Your task to perform on an android device: turn on bluetooth scan Image 0: 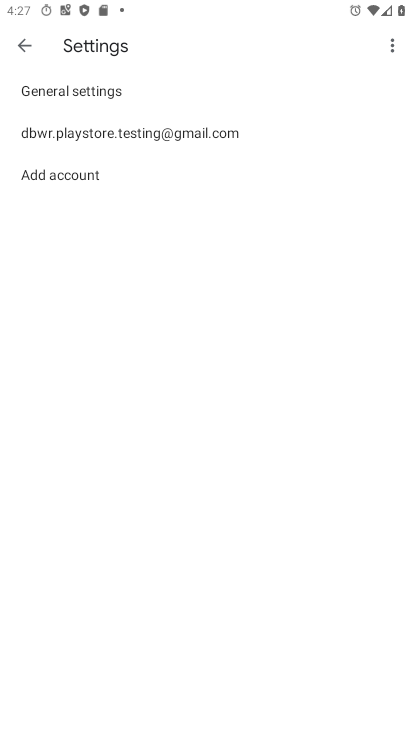
Step 0: press home button
Your task to perform on an android device: turn on bluetooth scan Image 1: 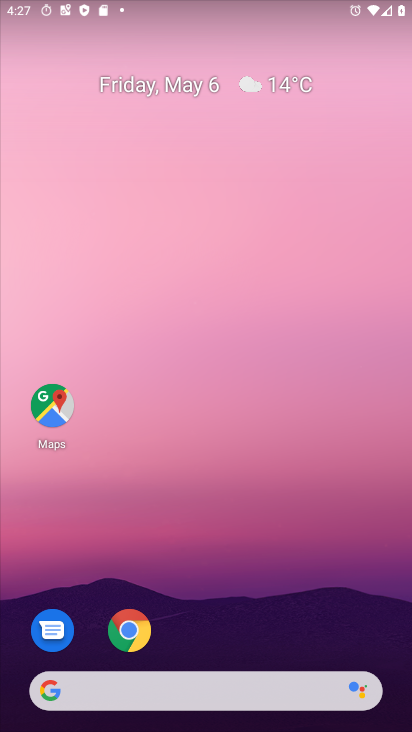
Step 1: drag from (245, 615) to (289, 208)
Your task to perform on an android device: turn on bluetooth scan Image 2: 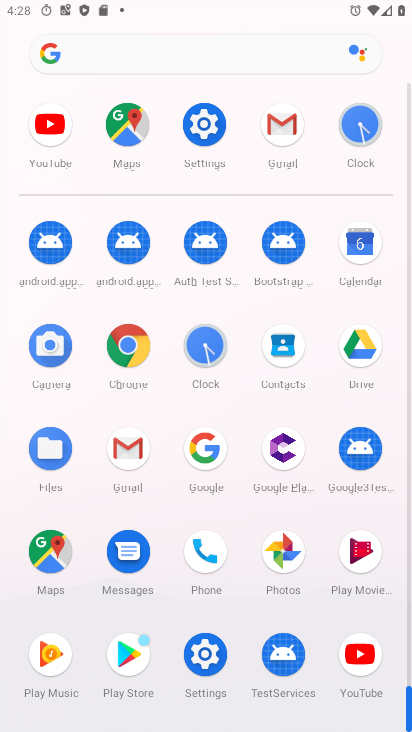
Step 2: click (201, 664)
Your task to perform on an android device: turn on bluetooth scan Image 3: 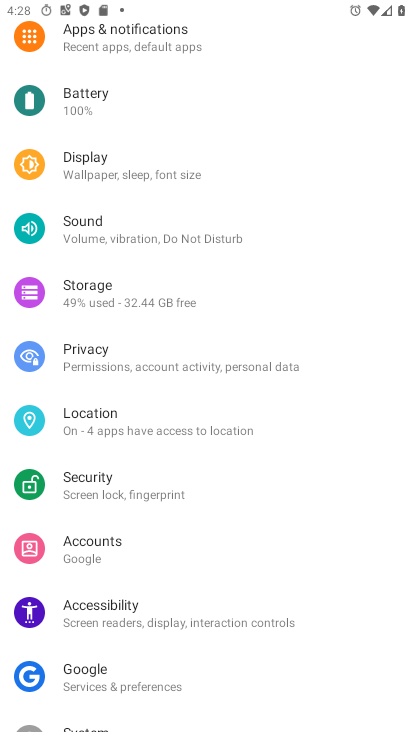
Step 3: click (69, 428)
Your task to perform on an android device: turn on bluetooth scan Image 4: 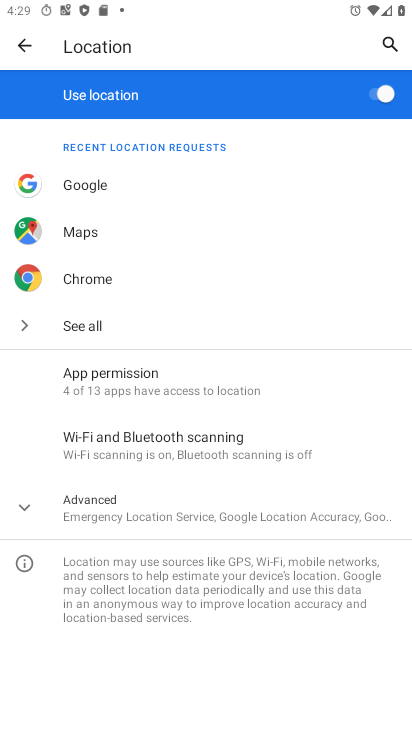
Step 4: click (126, 516)
Your task to perform on an android device: turn on bluetooth scan Image 5: 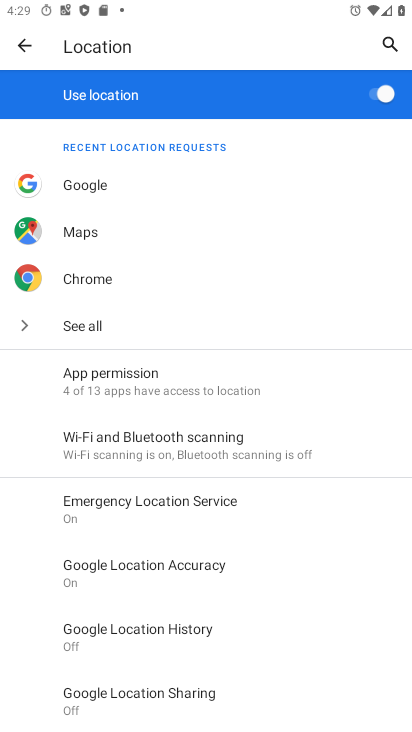
Step 5: click (187, 456)
Your task to perform on an android device: turn on bluetooth scan Image 6: 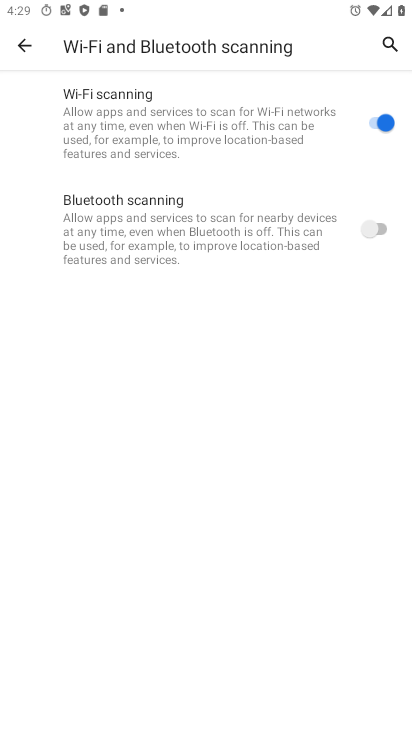
Step 6: click (389, 228)
Your task to perform on an android device: turn on bluetooth scan Image 7: 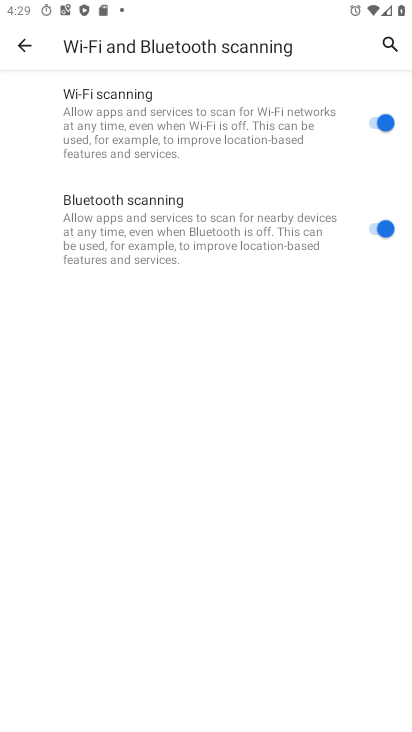
Step 7: task complete